Your task to perform on an android device: open a bookmark in the chrome app Image 0: 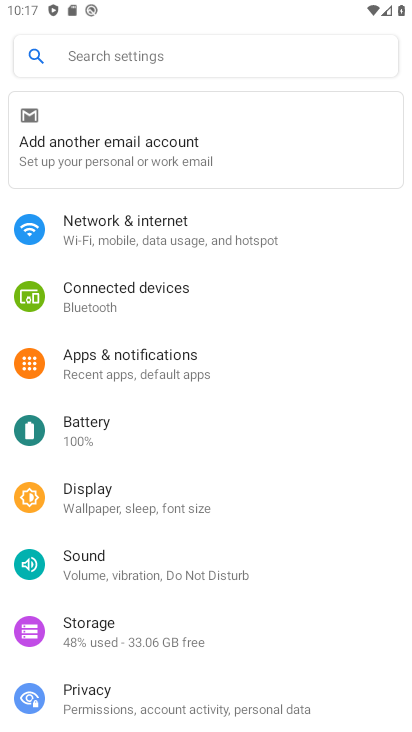
Step 0: press back button
Your task to perform on an android device: open a bookmark in the chrome app Image 1: 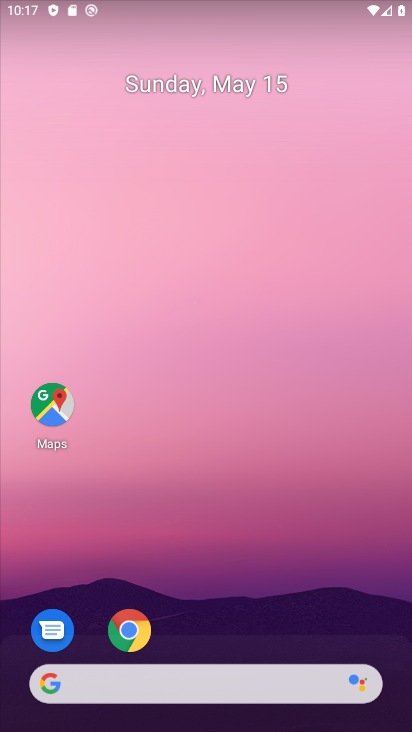
Step 1: click (134, 640)
Your task to perform on an android device: open a bookmark in the chrome app Image 2: 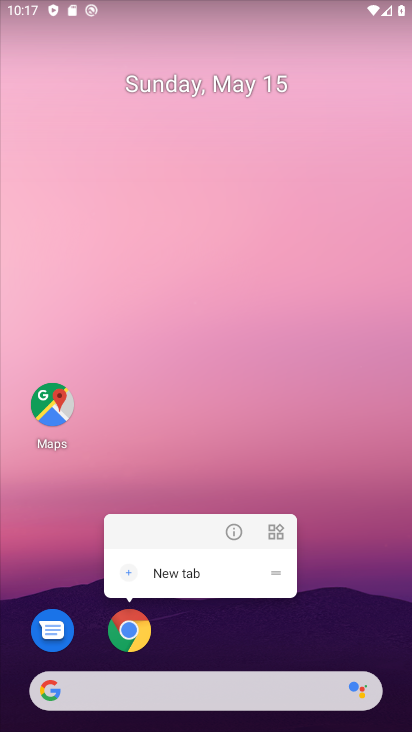
Step 2: click (122, 634)
Your task to perform on an android device: open a bookmark in the chrome app Image 3: 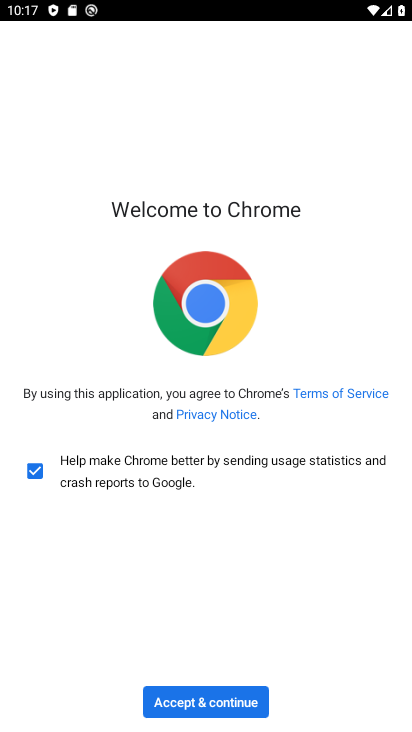
Step 3: click (169, 690)
Your task to perform on an android device: open a bookmark in the chrome app Image 4: 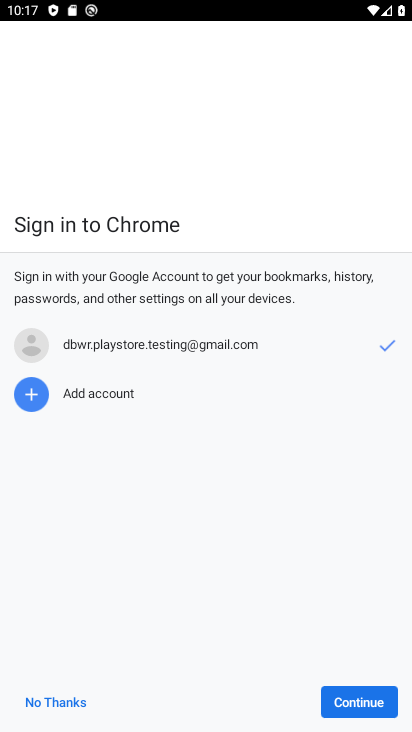
Step 4: click (340, 702)
Your task to perform on an android device: open a bookmark in the chrome app Image 5: 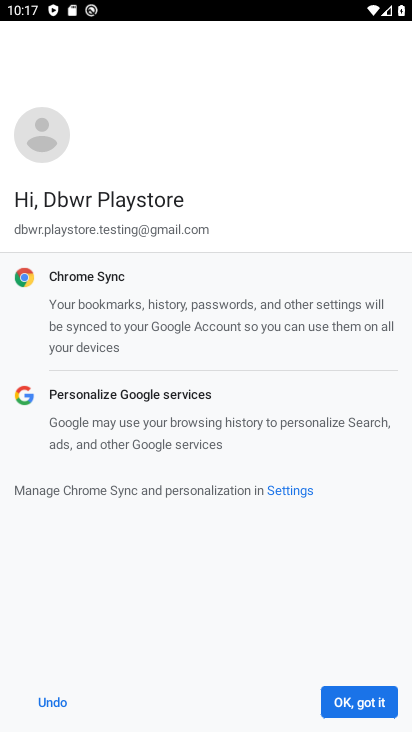
Step 5: click (328, 699)
Your task to perform on an android device: open a bookmark in the chrome app Image 6: 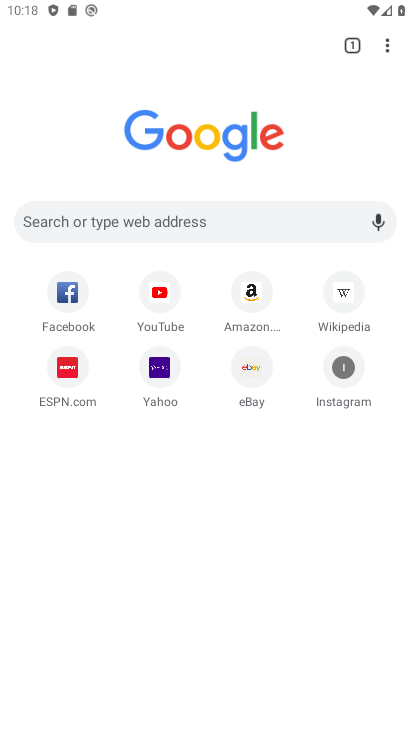
Step 6: task complete